Your task to perform on an android device: clear history in the chrome app Image 0: 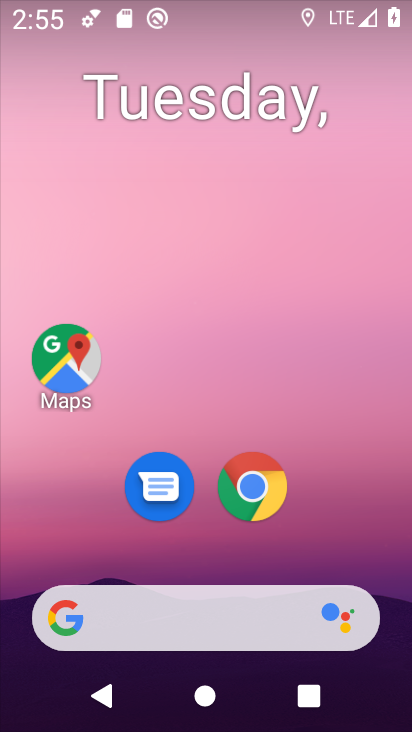
Step 0: drag from (377, 542) to (329, 141)
Your task to perform on an android device: clear history in the chrome app Image 1: 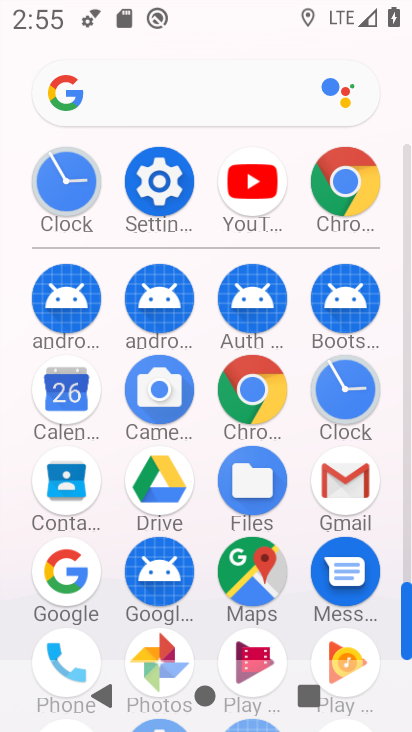
Step 1: click (354, 185)
Your task to perform on an android device: clear history in the chrome app Image 2: 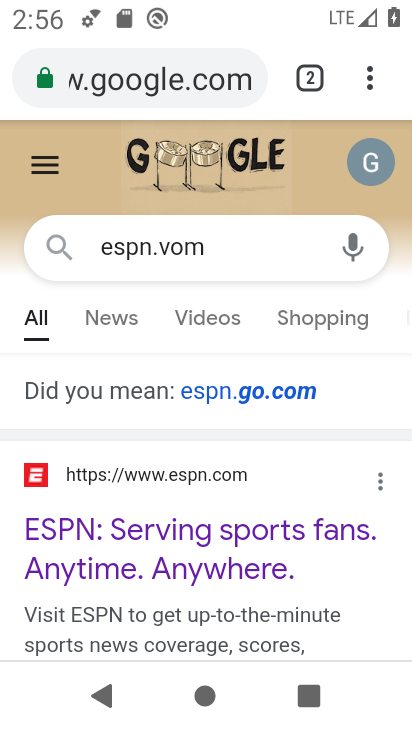
Step 2: click (366, 83)
Your task to perform on an android device: clear history in the chrome app Image 3: 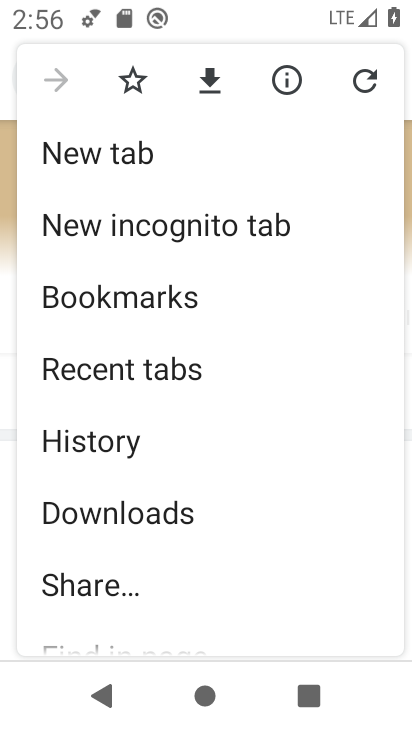
Step 3: drag from (322, 362) to (319, 301)
Your task to perform on an android device: clear history in the chrome app Image 4: 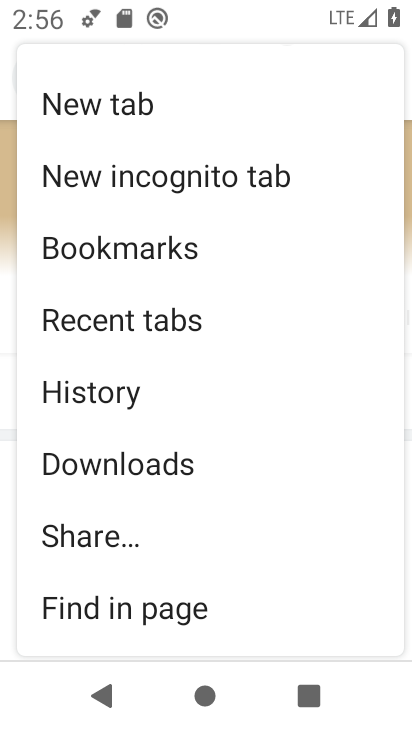
Step 4: drag from (305, 413) to (297, 338)
Your task to perform on an android device: clear history in the chrome app Image 5: 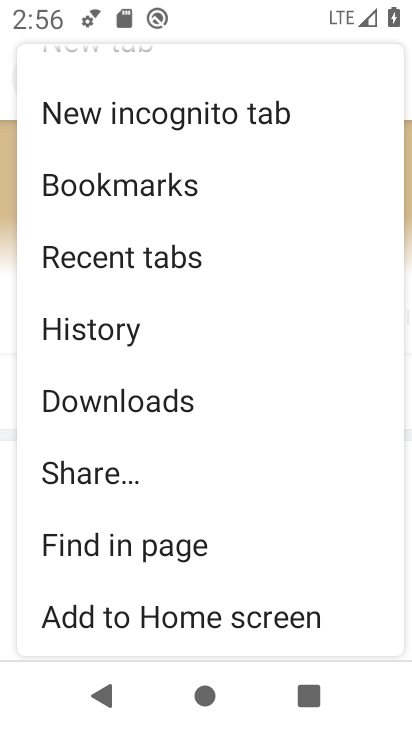
Step 5: drag from (290, 433) to (286, 355)
Your task to perform on an android device: clear history in the chrome app Image 6: 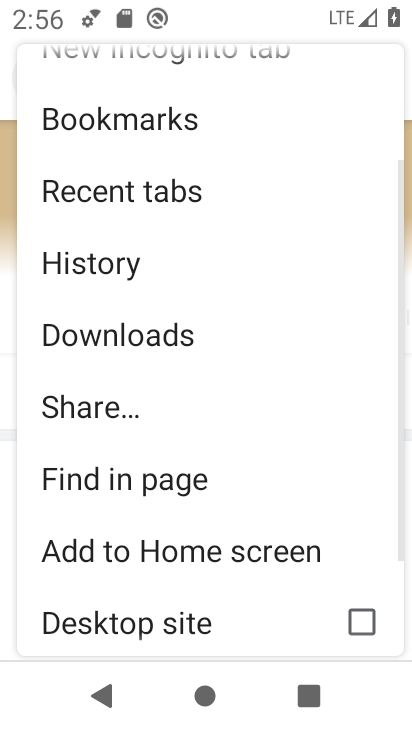
Step 6: drag from (290, 445) to (281, 366)
Your task to perform on an android device: clear history in the chrome app Image 7: 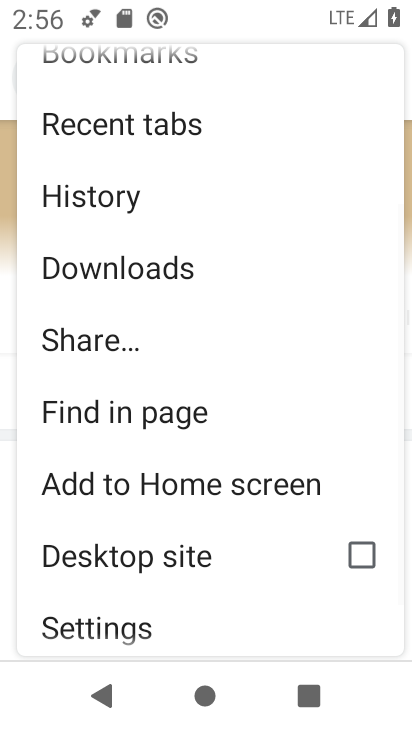
Step 7: drag from (271, 463) to (268, 337)
Your task to perform on an android device: clear history in the chrome app Image 8: 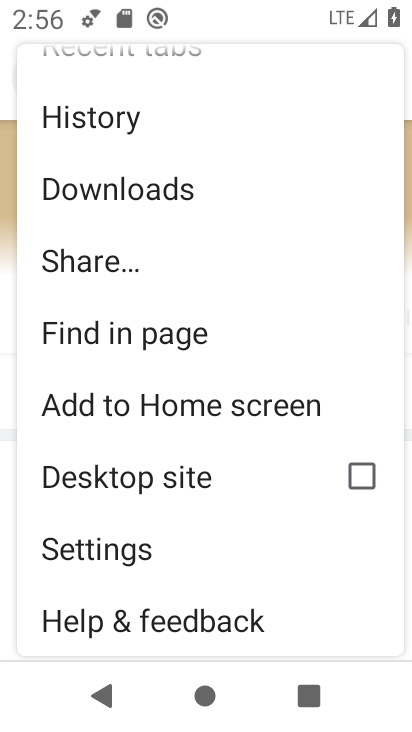
Step 8: drag from (257, 196) to (258, 285)
Your task to perform on an android device: clear history in the chrome app Image 9: 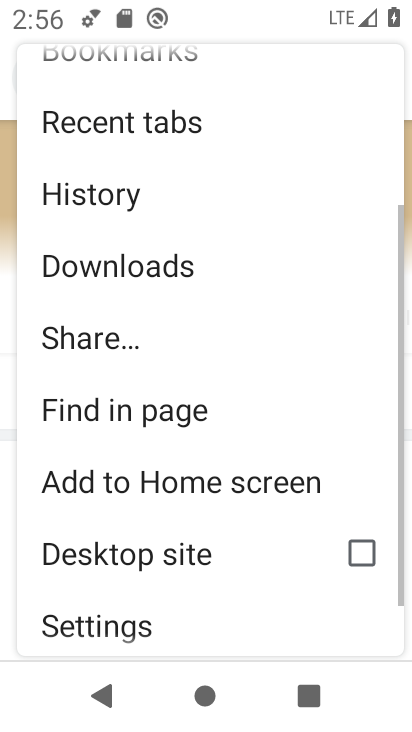
Step 9: drag from (269, 205) to (264, 327)
Your task to perform on an android device: clear history in the chrome app Image 10: 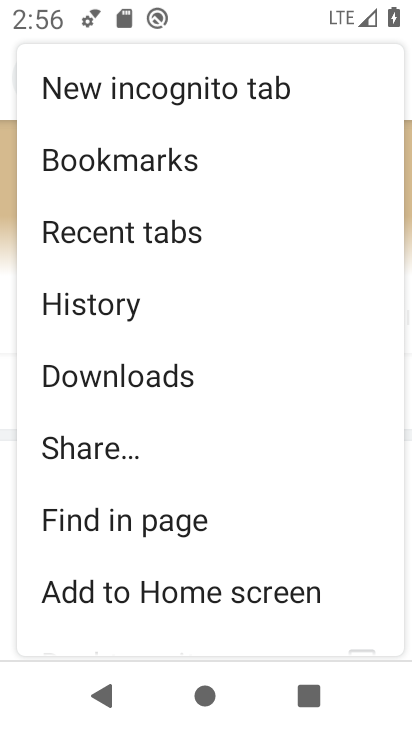
Step 10: click (245, 311)
Your task to perform on an android device: clear history in the chrome app Image 11: 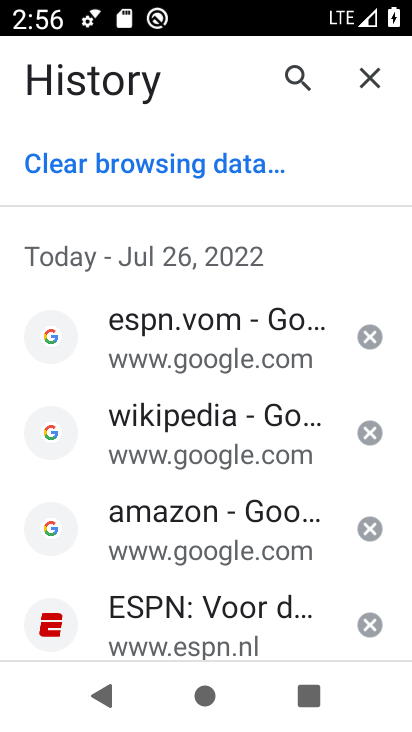
Step 11: click (237, 159)
Your task to perform on an android device: clear history in the chrome app Image 12: 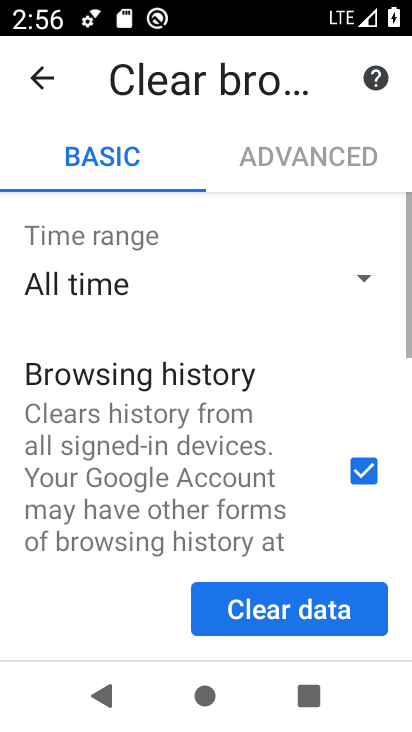
Step 12: click (288, 600)
Your task to perform on an android device: clear history in the chrome app Image 13: 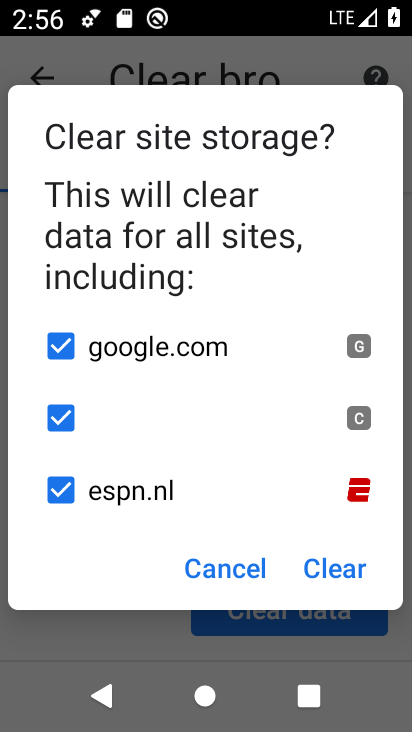
Step 13: click (324, 556)
Your task to perform on an android device: clear history in the chrome app Image 14: 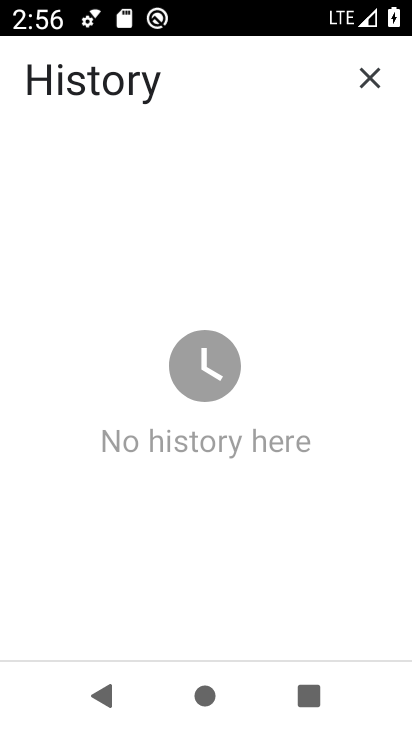
Step 14: task complete